Your task to perform on an android device: move a message to another label in the gmail app Image 0: 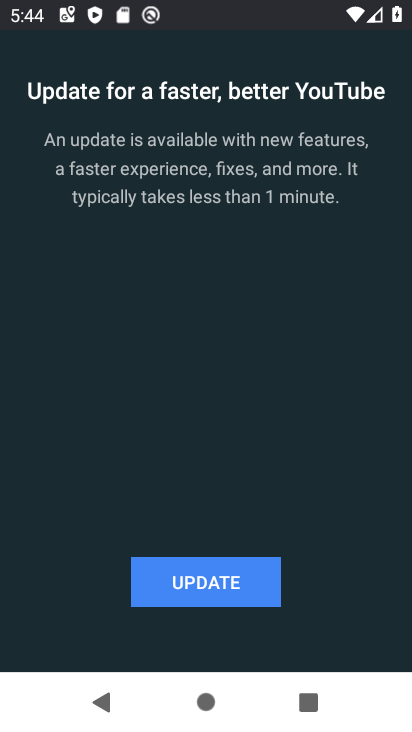
Step 0: press home button
Your task to perform on an android device: move a message to another label in the gmail app Image 1: 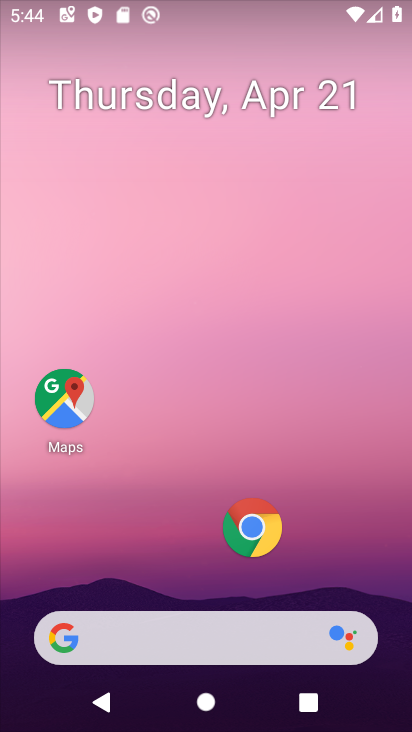
Step 1: drag from (161, 578) to (238, 16)
Your task to perform on an android device: move a message to another label in the gmail app Image 2: 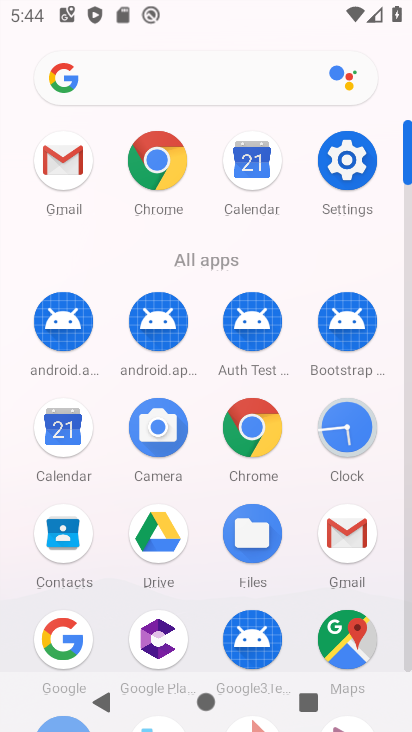
Step 2: click (60, 156)
Your task to perform on an android device: move a message to another label in the gmail app Image 3: 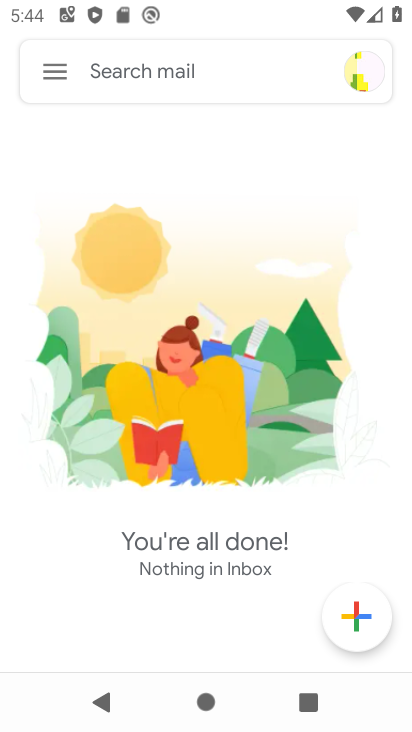
Step 3: click (43, 38)
Your task to perform on an android device: move a message to another label in the gmail app Image 4: 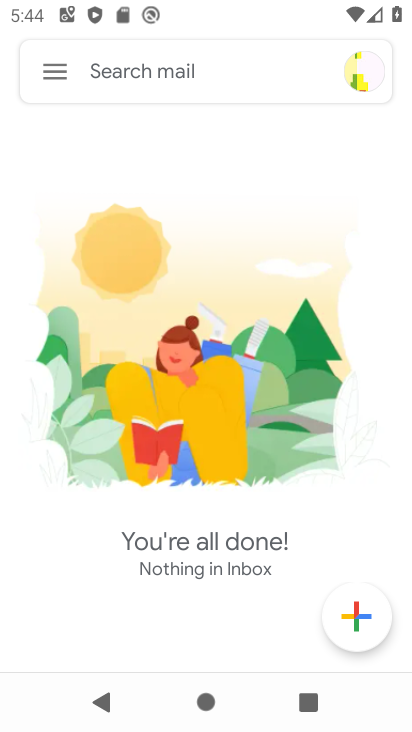
Step 4: click (54, 74)
Your task to perform on an android device: move a message to another label in the gmail app Image 5: 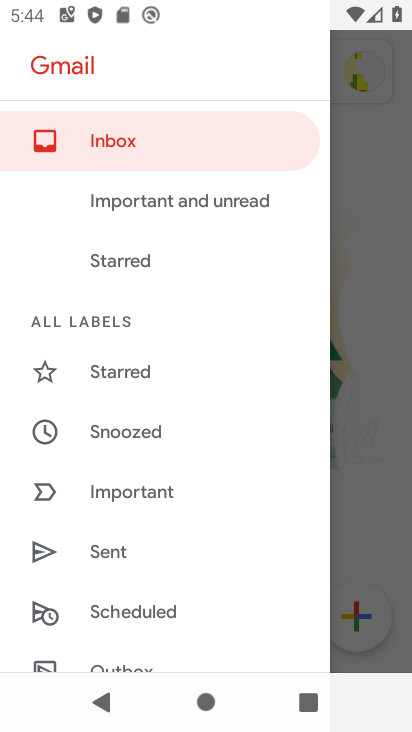
Step 5: drag from (181, 613) to (260, 91)
Your task to perform on an android device: move a message to another label in the gmail app Image 6: 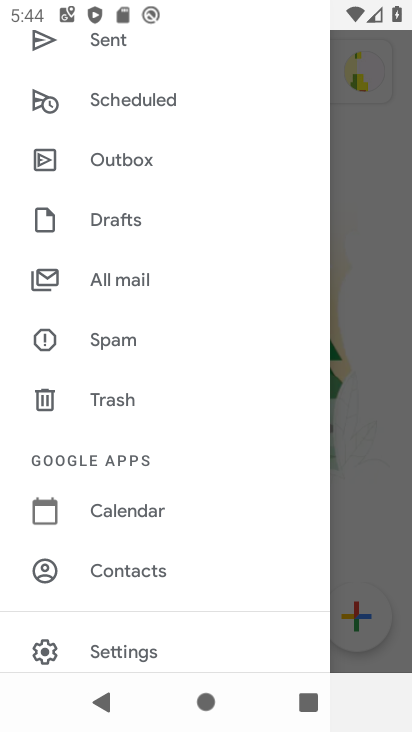
Step 6: click (121, 275)
Your task to perform on an android device: move a message to another label in the gmail app Image 7: 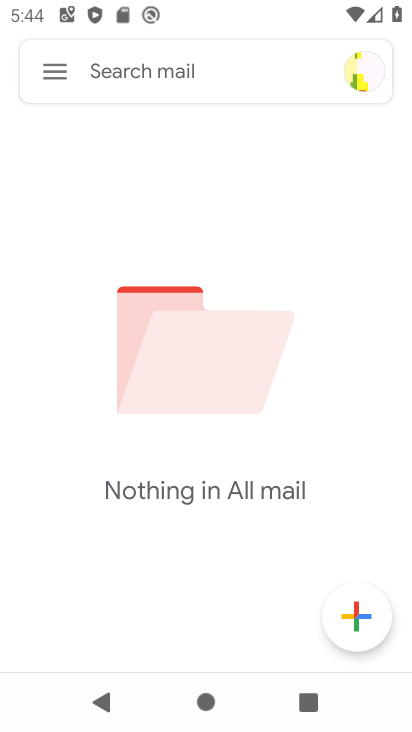
Step 7: task complete